Your task to perform on an android device: Open Google Maps Image 0: 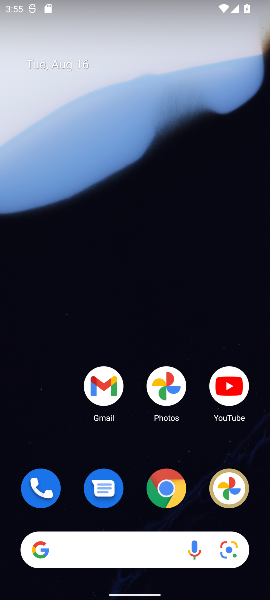
Step 0: drag from (50, 387) to (72, 21)
Your task to perform on an android device: Open Google Maps Image 1: 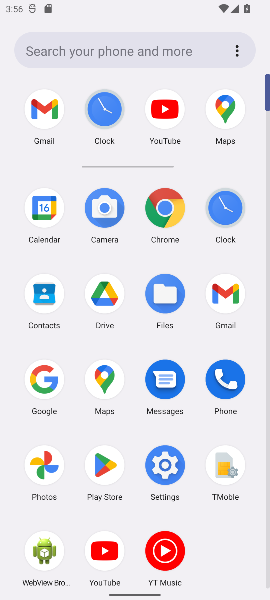
Step 1: task complete